Your task to perform on an android device: turn on location history Image 0: 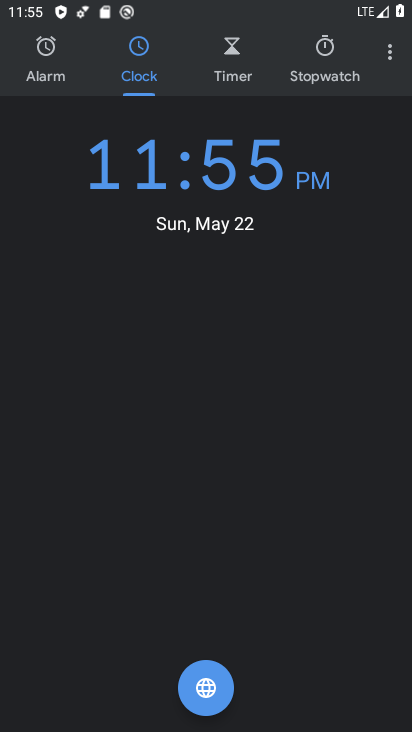
Step 0: press home button
Your task to perform on an android device: turn on location history Image 1: 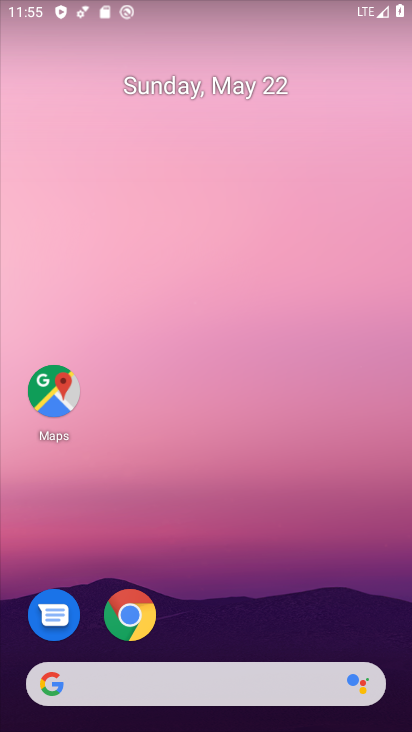
Step 1: drag from (214, 569) to (288, 85)
Your task to perform on an android device: turn on location history Image 2: 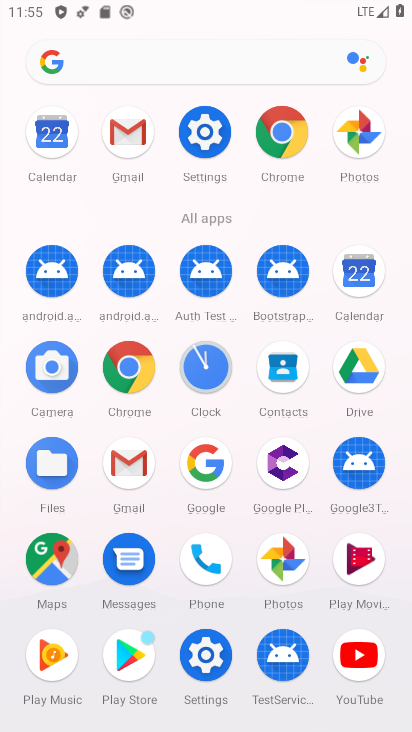
Step 2: click (193, 117)
Your task to perform on an android device: turn on location history Image 3: 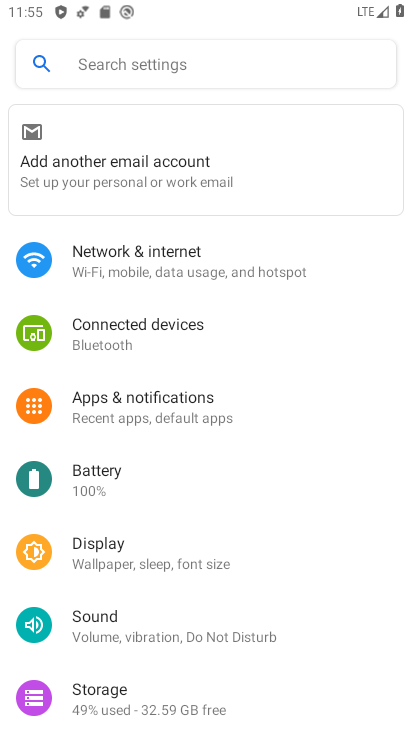
Step 3: drag from (152, 643) to (205, 193)
Your task to perform on an android device: turn on location history Image 4: 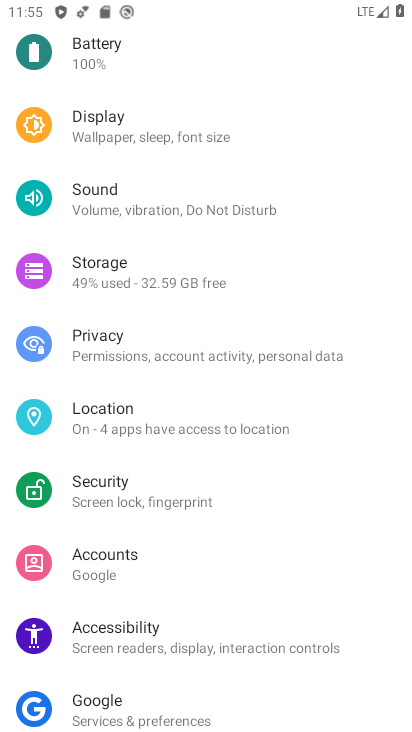
Step 4: click (113, 418)
Your task to perform on an android device: turn on location history Image 5: 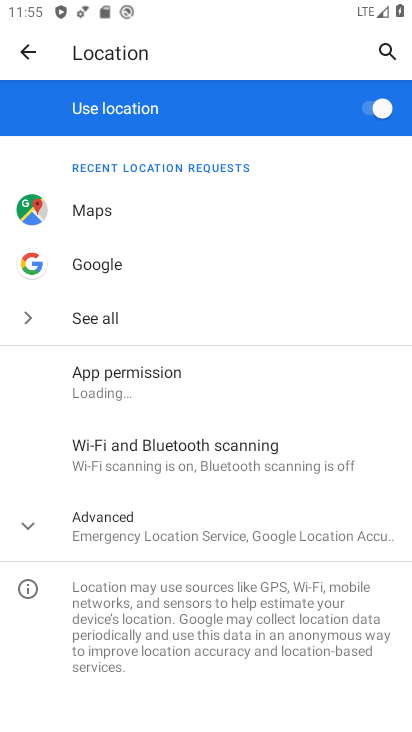
Step 5: click (135, 518)
Your task to perform on an android device: turn on location history Image 6: 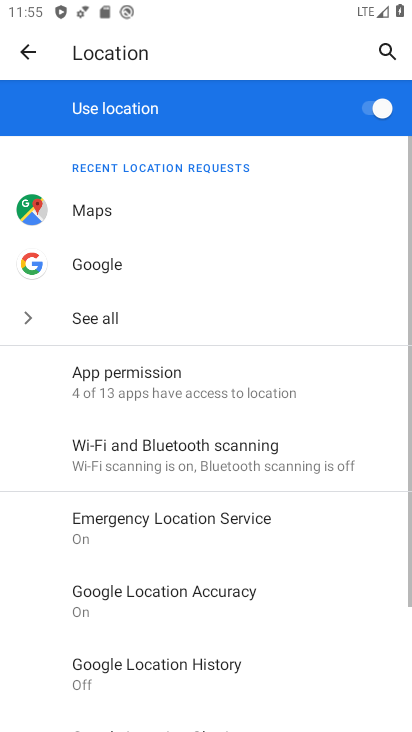
Step 6: click (134, 670)
Your task to perform on an android device: turn on location history Image 7: 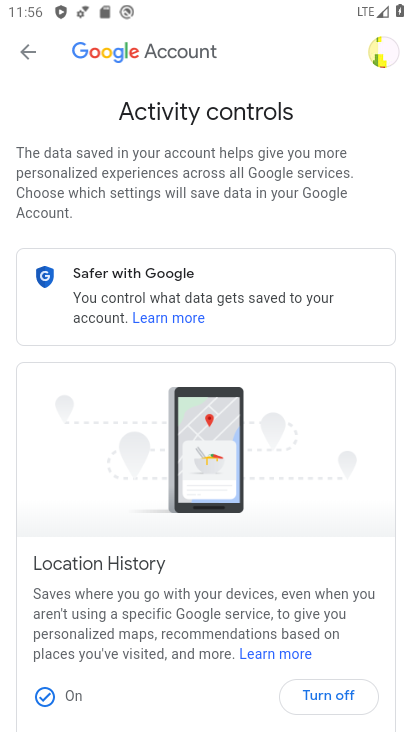
Step 7: task complete